Your task to perform on an android device: Go to settings Image 0: 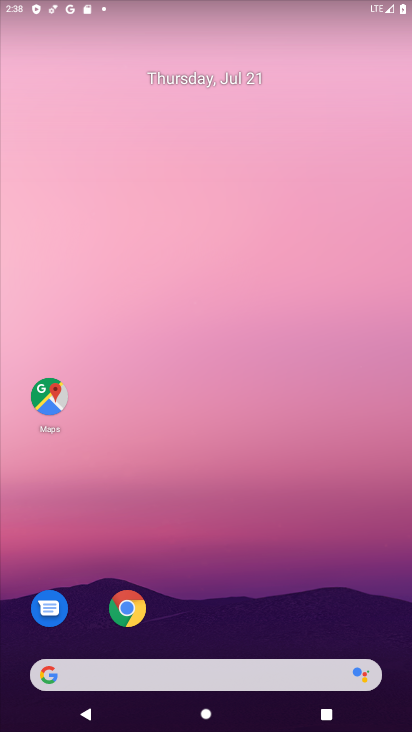
Step 0: drag from (223, 669) to (201, 122)
Your task to perform on an android device: Go to settings Image 1: 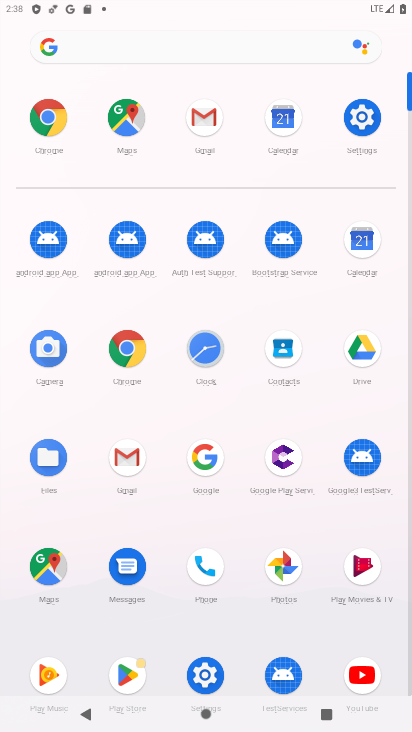
Step 1: click (204, 673)
Your task to perform on an android device: Go to settings Image 2: 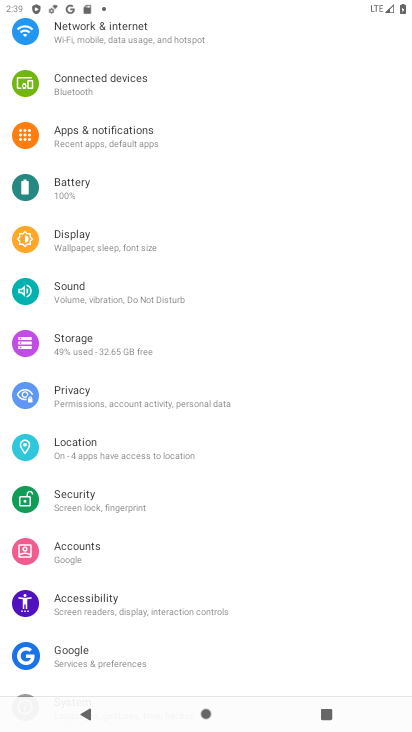
Step 2: task complete